Your task to perform on an android device: Open Maps and search for coffee Image 0: 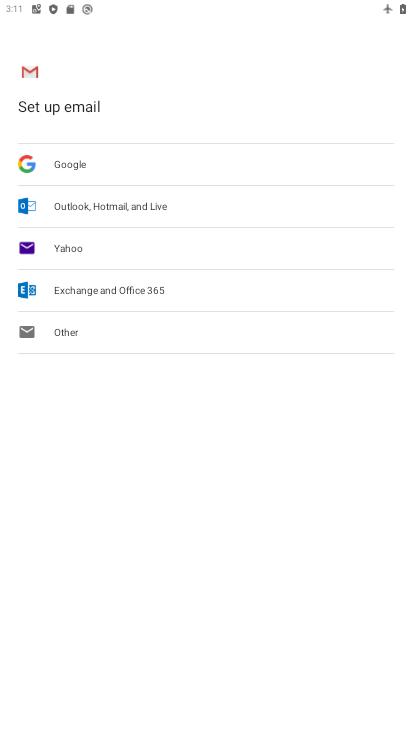
Step 0: press home button
Your task to perform on an android device: Open Maps and search for coffee Image 1: 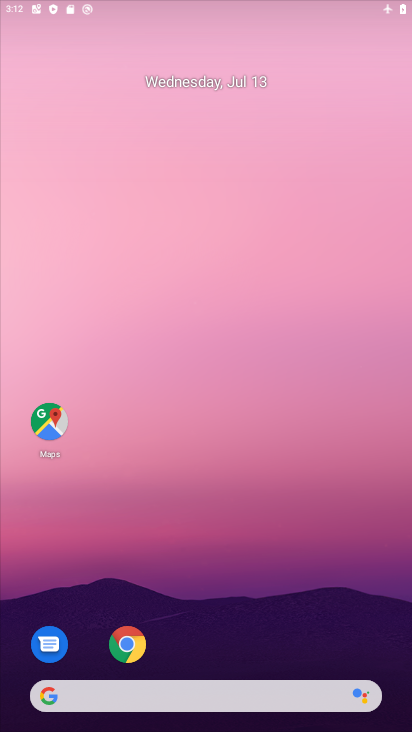
Step 1: drag from (255, 598) to (270, 152)
Your task to perform on an android device: Open Maps and search for coffee Image 2: 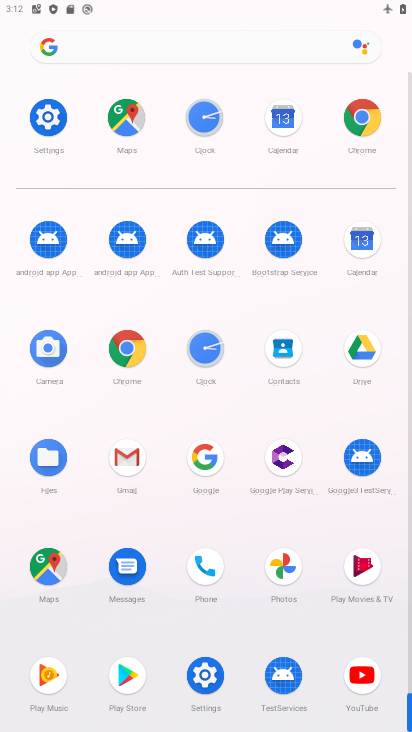
Step 2: click (52, 556)
Your task to perform on an android device: Open Maps and search for coffee Image 3: 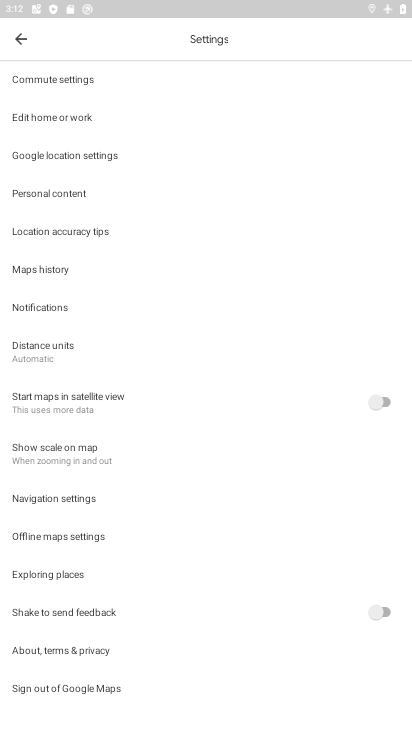
Step 3: click (20, 43)
Your task to perform on an android device: Open Maps and search for coffee Image 4: 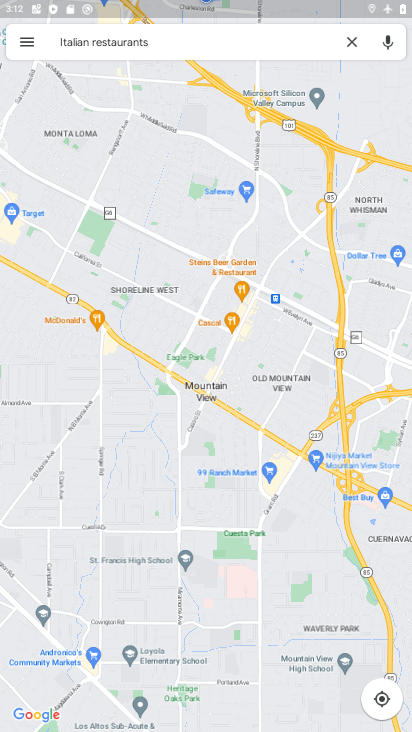
Step 4: click (122, 33)
Your task to perform on an android device: Open Maps and search for coffee Image 5: 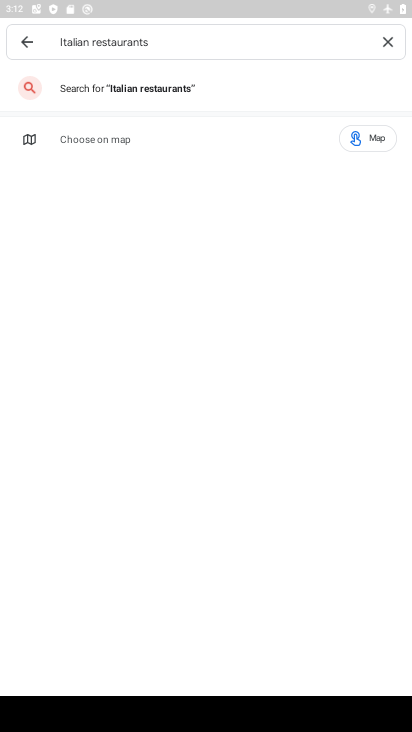
Step 5: click (385, 44)
Your task to perform on an android device: Open Maps and search for coffee Image 6: 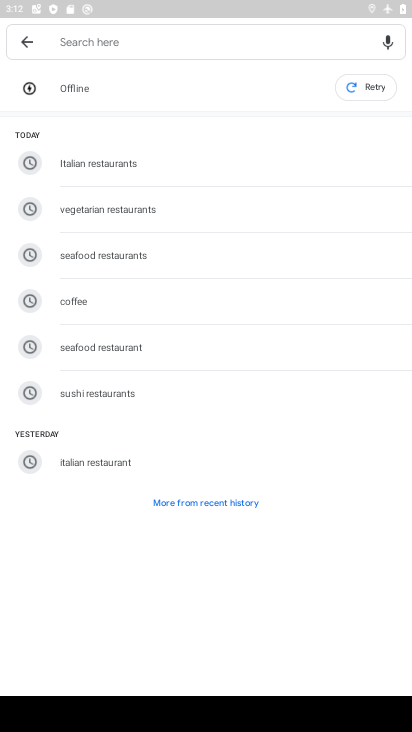
Step 6: type "coffee"
Your task to perform on an android device: Open Maps and search for coffee Image 7: 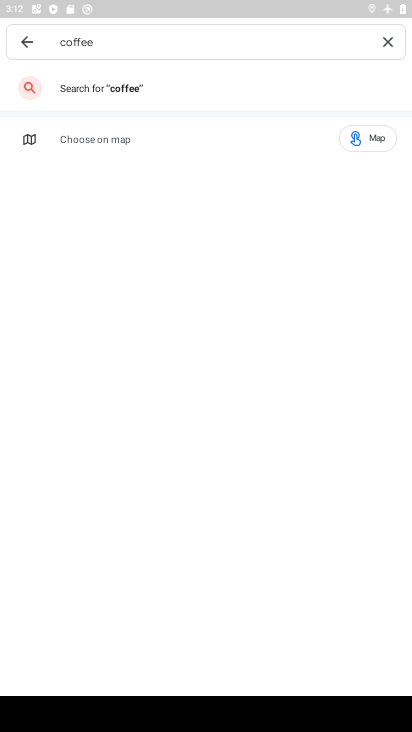
Step 7: click (136, 92)
Your task to perform on an android device: Open Maps and search for coffee Image 8: 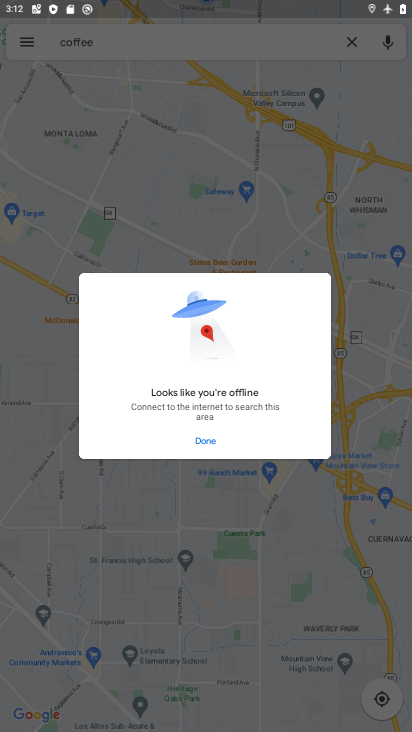
Step 8: task complete